Your task to perform on an android device: Open calendar and show me the first week of next month Image 0: 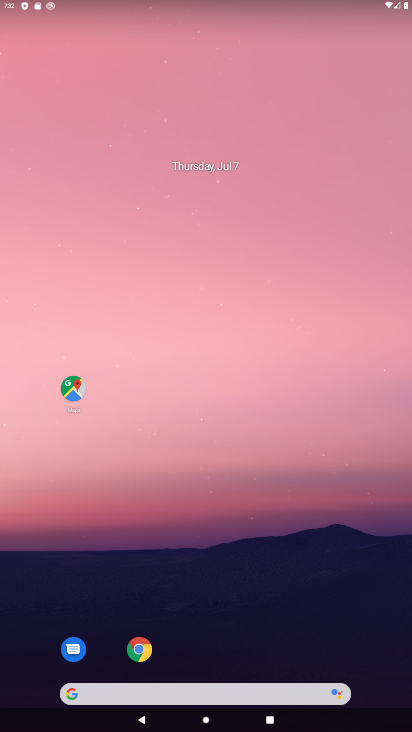
Step 0: press home button
Your task to perform on an android device: Open calendar and show me the first week of next month Image 1: 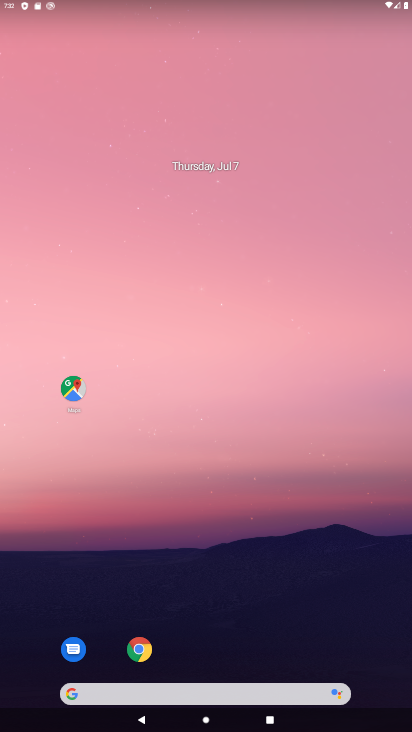
Step 1: drag from (237, 603) to (311, 70)
Your task to perform on an android device: Open calendar and show me the first week of next month Image 2: 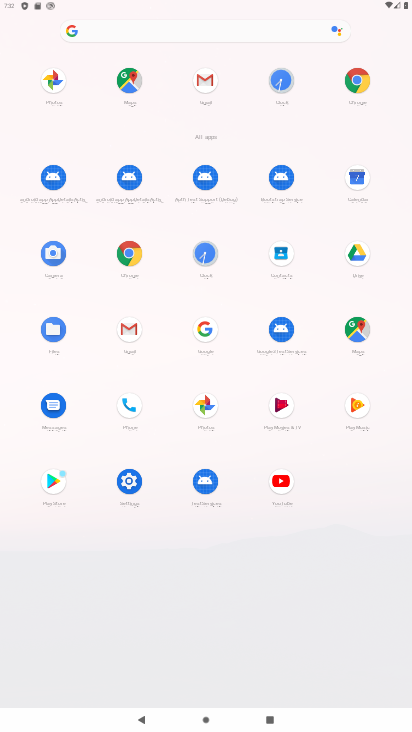
Step 2: click (351, 179)
Your task to perform on an android device: Open calendar and show me the first week of next month Image 3: 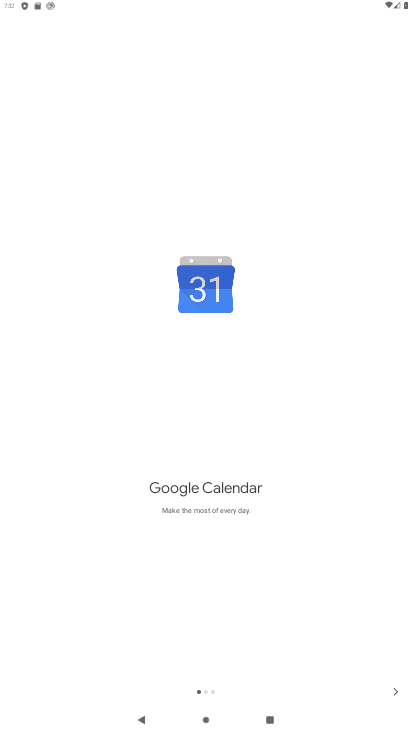
Step 3: click (392, 690)
Your task to perform on an android device: Open calendar and show me the first week of next month Image 4: 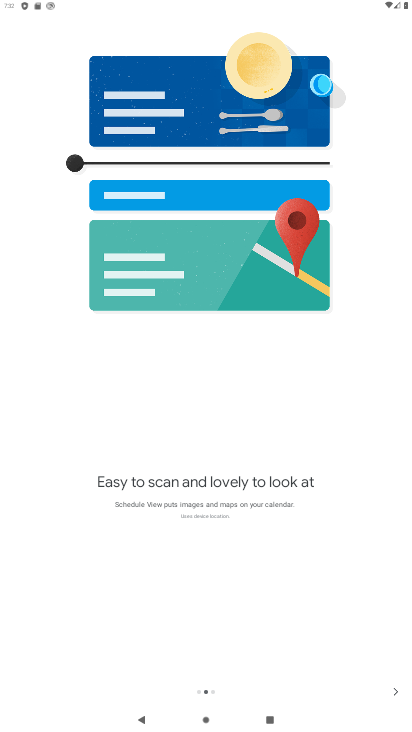
Step 4: click (392, 690)
Your task to perform on an android device: Open calendar and show me the first week of next month Image 5: 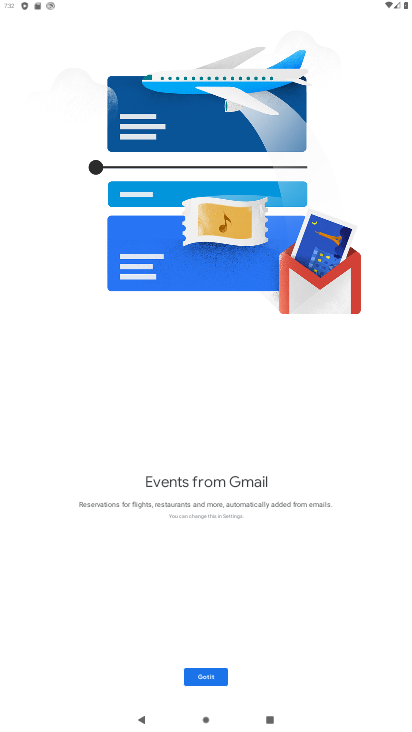
Step 5: click (203, 688)
Your task to perform on an android device: Open calendar and show me the first week of next month Image 6: 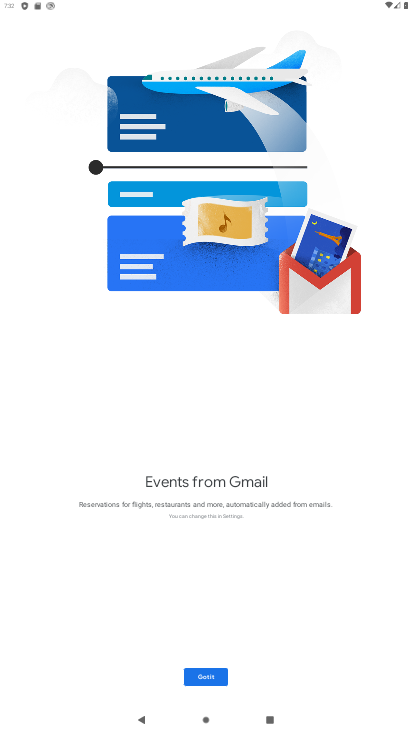
Step 6: click (204, 683)
Your task to perform on an android device: Open calendar and show me the first week of next month Image 7: 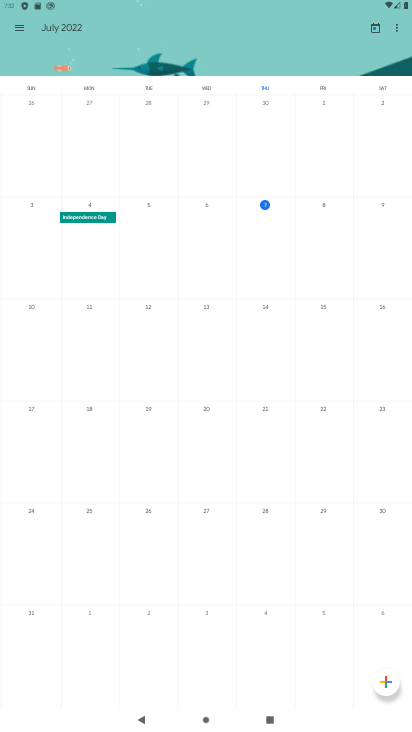
Step 7: drag from (361, 323) to (0, 401)
Your task to perform on an android device: Open calendar and show me the first week of next month Image 8: 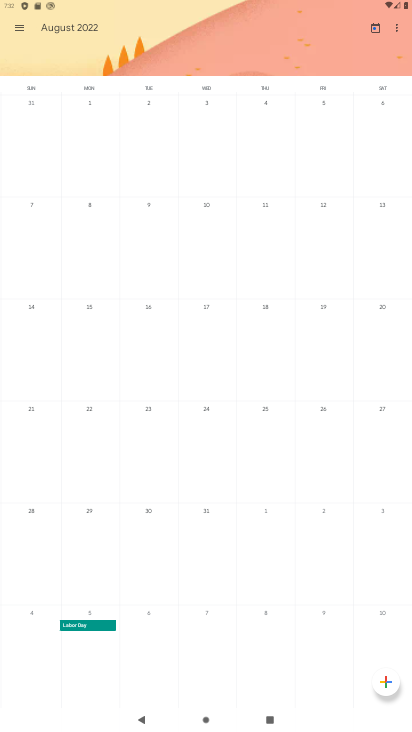
Step 8: click (81, 118)
Your task to perform on an android device: Open calendar and show me the first week of next month Image 9: 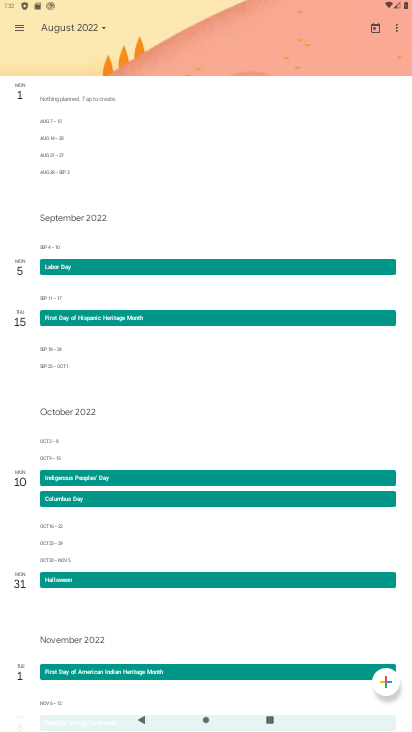
Step 9: click (18, 24)
Your task to perform on an android device: Open calendar and show me the first week of next month Image 10: 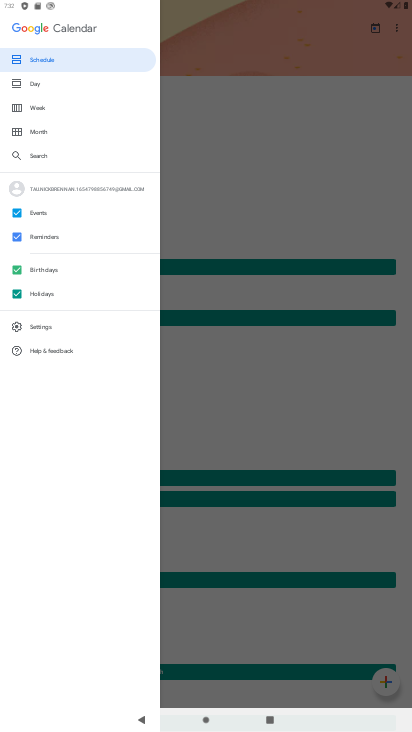
Step 10: click (40, 103)
Your task to perform on an android device: Open calendar and show me the first week of next month Image 11: 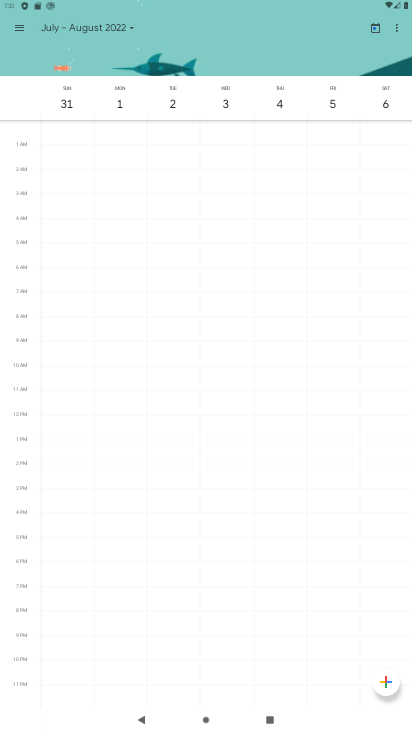
Step 11: click (117, 108)
Your task to perform on an android device: Open calendar and show me the first week of next month Image 12: 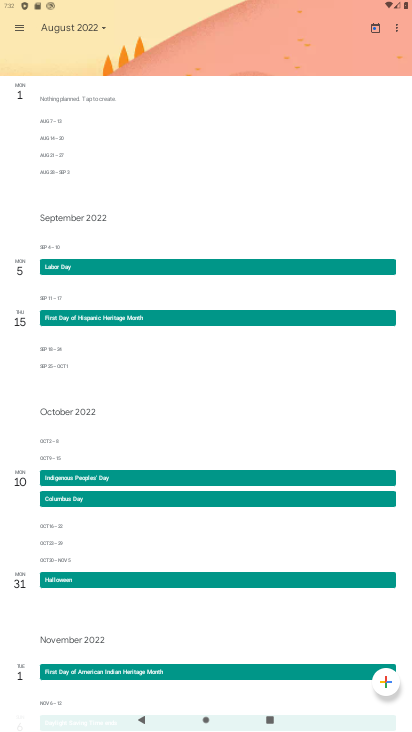
Step 12: task complete